Your task to perform on an android device: Go to location settings Image 0: 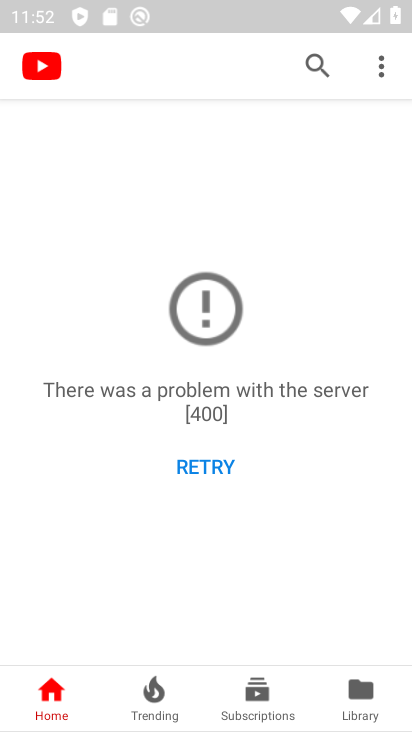
Step 0: press home button
Your task to perform on an android device: Go to location settings Image 1: 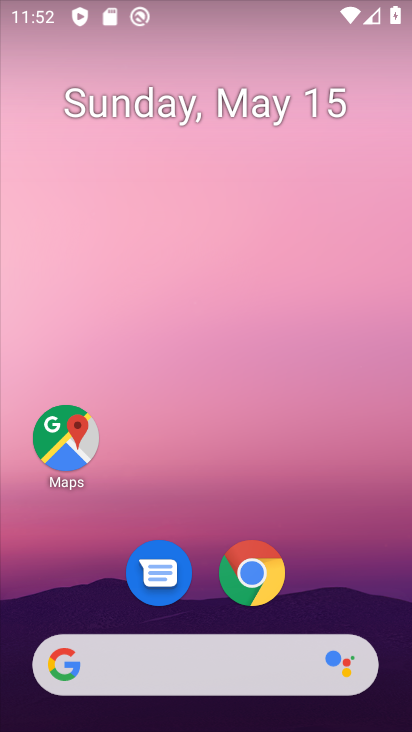
Step 1: drag from (348, 546) to (283, 65)
Your task to perform on an android device: Go to location settings Image 2: 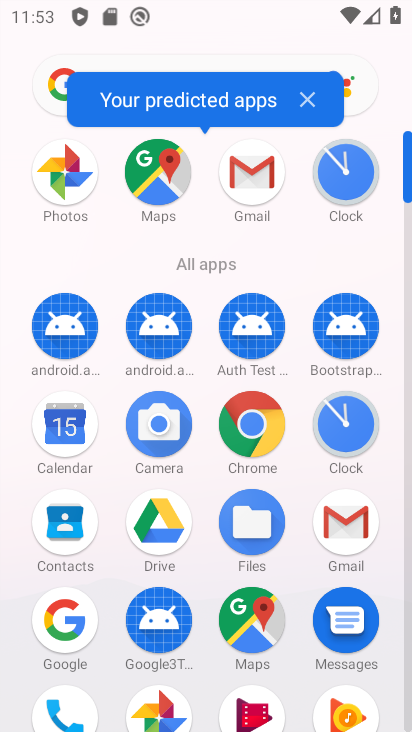
Step 2: drag from (208, 283) to (212, 101)
Your task to perform on an android device: Go to location settings Image 3: 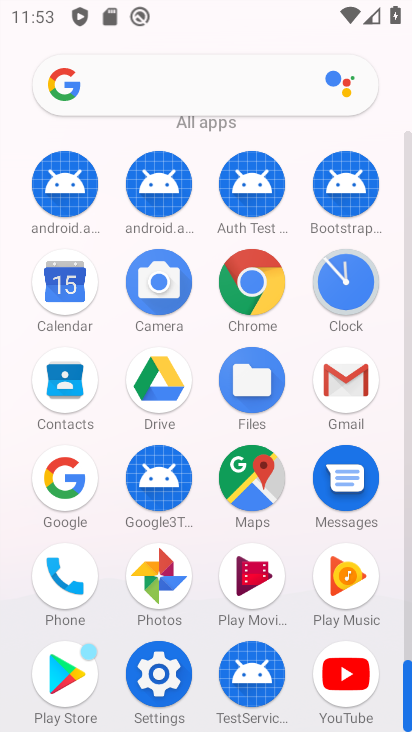
Step 3: click (170, 669)
Your task to perform on an android device: Go to location settings Image 4: 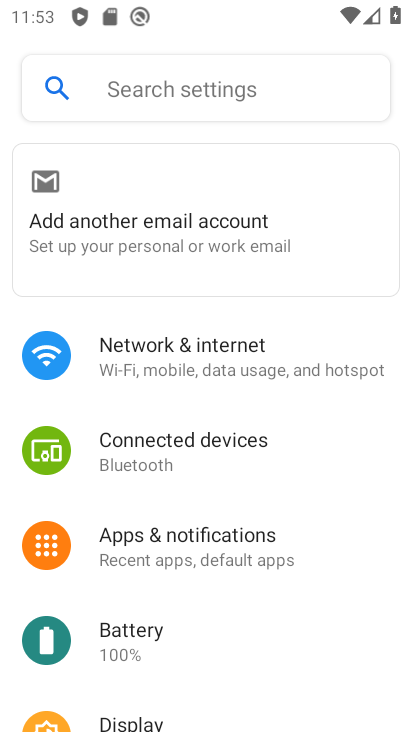
Step 4: drag from (181, 642) to (173, 202)
Your task to perform on an android device: Go to location settings Image 5: 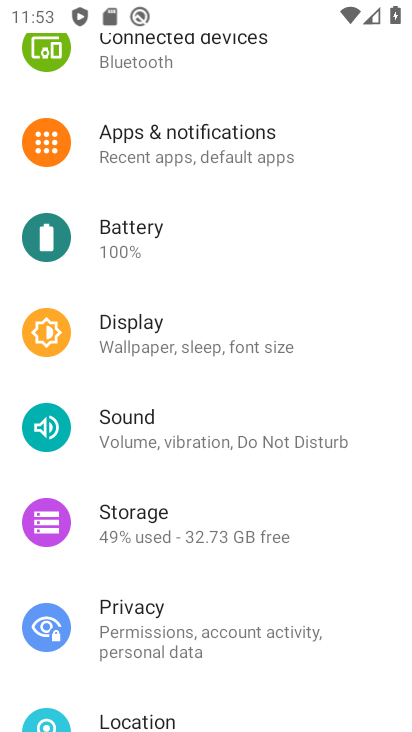
Step 5: click (163, 723)
Your task to perform on an android device: Go to location settings Image 6: 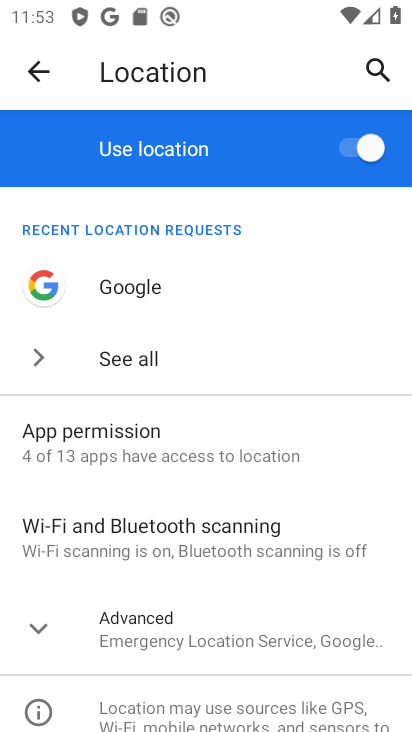
Step 6: task complete